Your task to perform on an android device: Search for seafood restaurants on Google Maps Image 0: 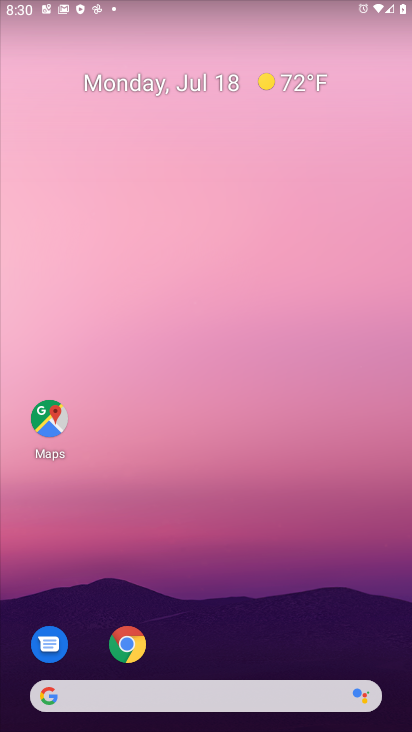
Step 0: drag from (404, 677) to (191, 45)
Your task to perform on an android device: Search for seafood restaurants on Google Maps Image 1: 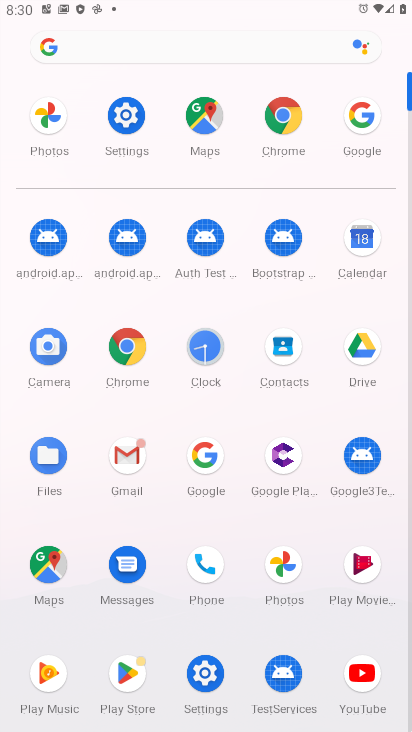
Step 1: click (48, 571)
Your task to perform on an android device: Search for seafood restaurants on Google Maps Image 2: 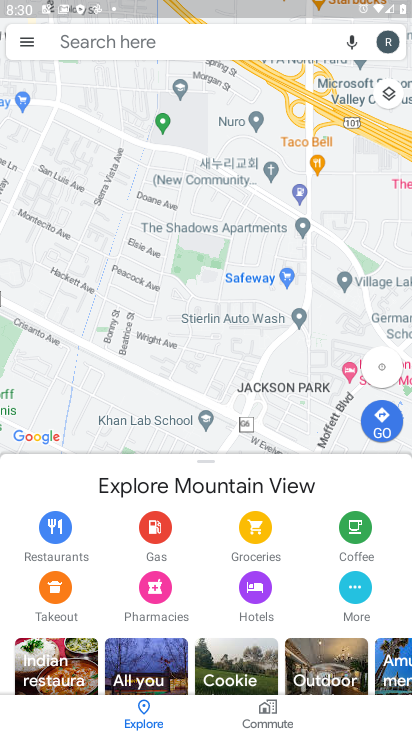
Step 2: click (152, 35)
Your task to perform on an android device: Search for seafood restaurants on Google Maps Image 3: 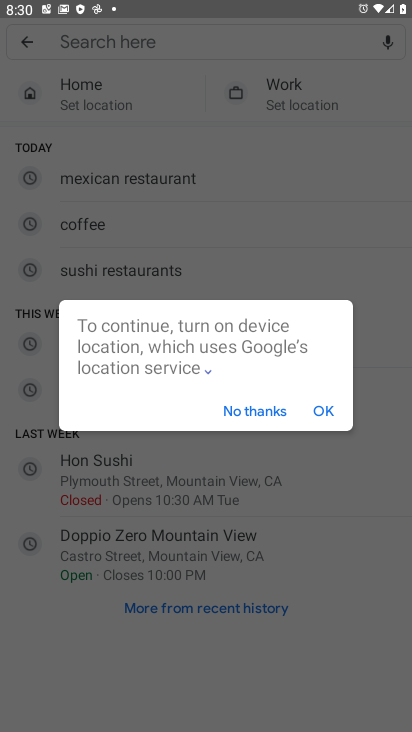
Step 3: click (318, 413)
Your task to perform on an android device: Search for seafood restaurants on Google Maps Image 4: 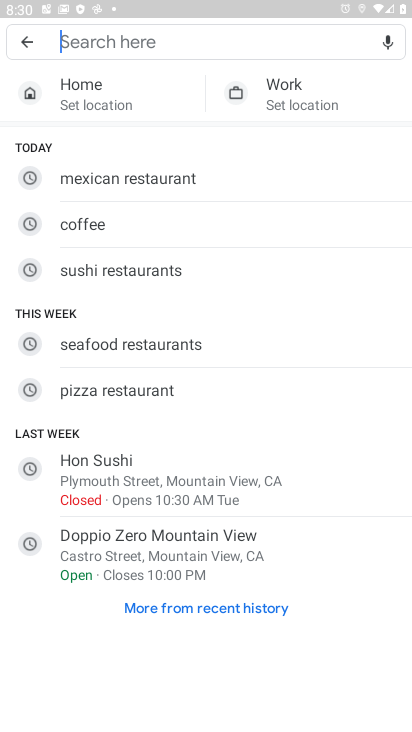
Step 4: click (143, 347)
Your task to perform on an android device: Search for seafood restaurants on Google Maps Image 5: 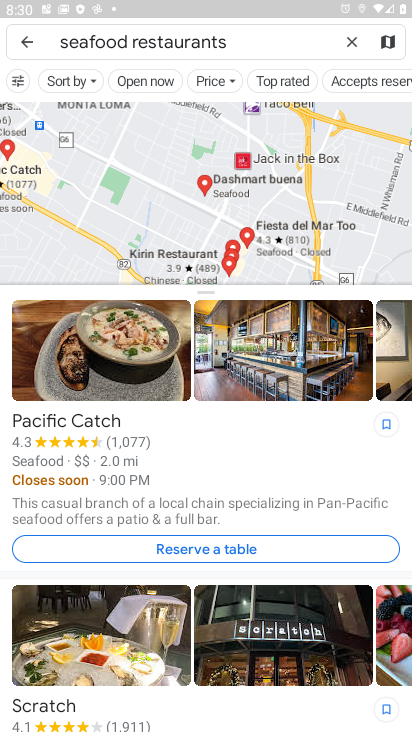
Step 5: task complete